Your task to perform on an android device: Open Youtube and go to "Your channel" Image 0: 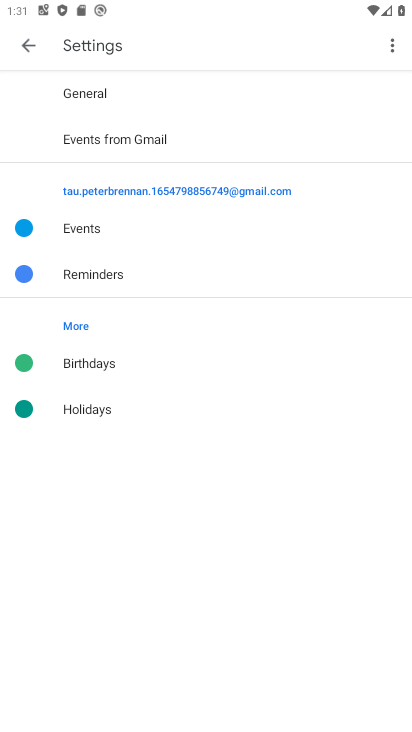
Step 0: press home button
Your task to perform on an android device: Open Youtube and go to "Your channel" Image 1: 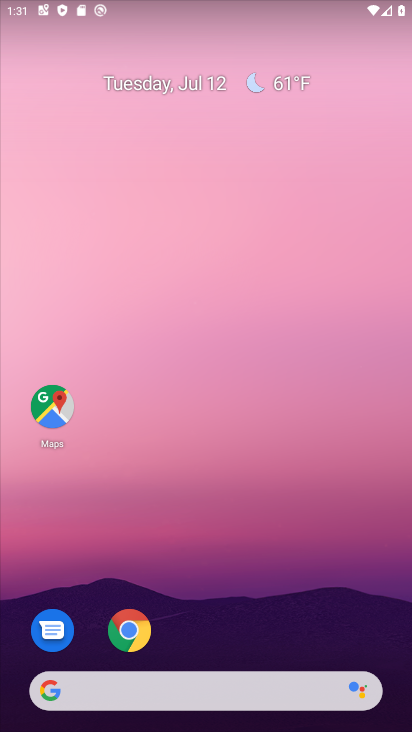
Step 1: drag from (226, 638) to (266, 196)
Your task to perform on an android device: Open Youtube and go to "Your channel" Image 2: 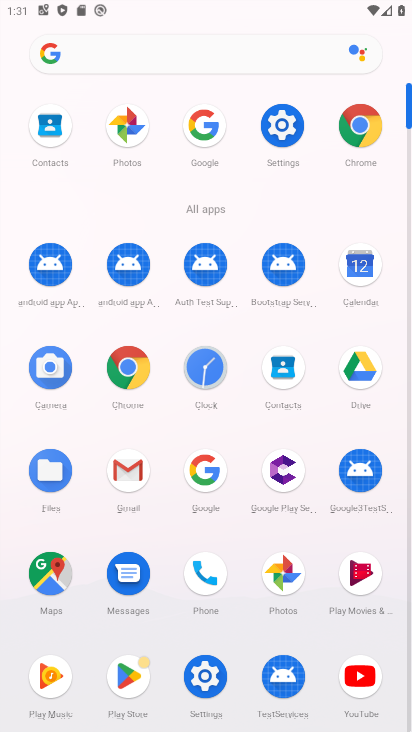
Step 2: click (350, 681)
Your task to perform on an android device: Open Youtube and go to "Your channel" Image 3: 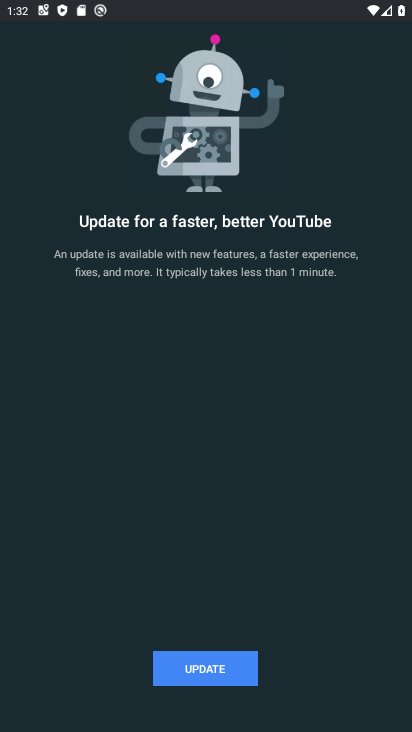
Step 3: click (254, 656)
Your task to perform on an android device: Open Youtube and go to "Your channel" Image 4: 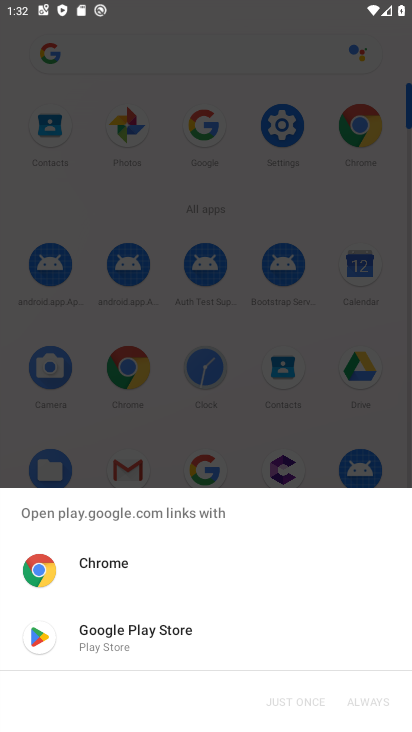
Step 4: click (116, 648)
Your task to perform on an android device: Open Youtube and go to "Your channel" Image 5: 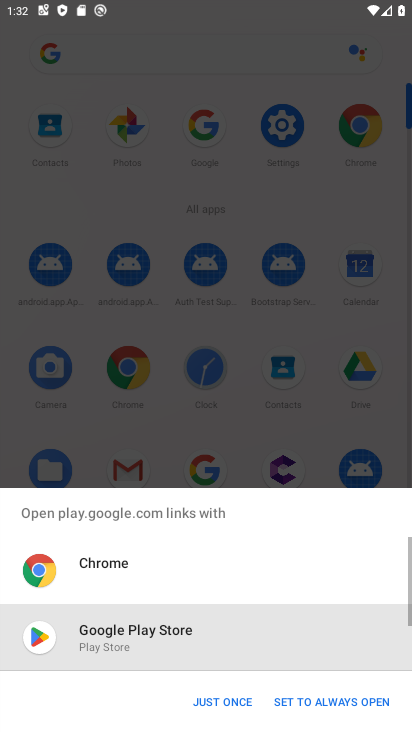
Step 5: click (234, 697)
Your task to perform on an android device: Open Youtube and go to "Your channel" Image 6: 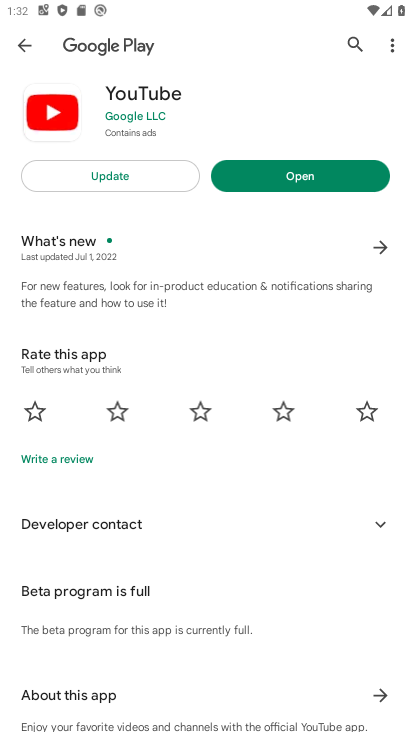
Step 6: click (139, 174)
Your task to perform on an android device: Open Youtube and go to "Your channel" Image 7: 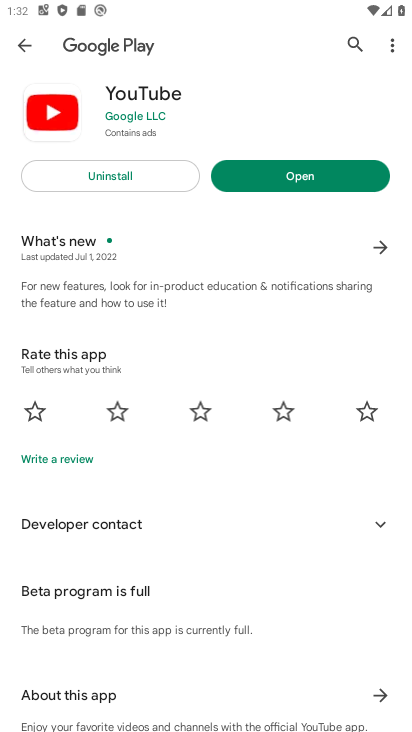
Step 7: click (266, 182)
Your task to perform on an android device: Open Youtube and go to "Your channel" Image 8: 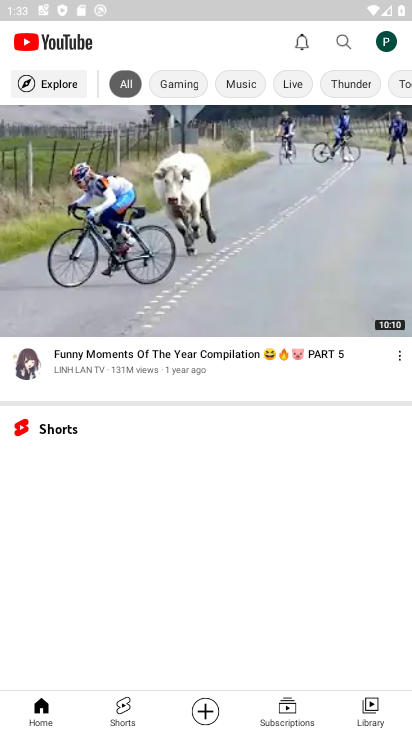
Step 8: click (382, 49)
Your task to perform on an android device: Open Youtube and go to "Your channel" Image 9: 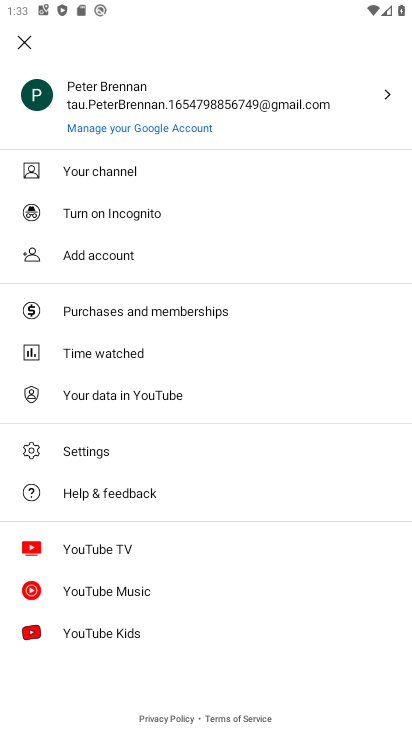
Step 9: click (170, 171)
Your task to perform on an android device: Open Youtube and go to "Your channel" Image 10: 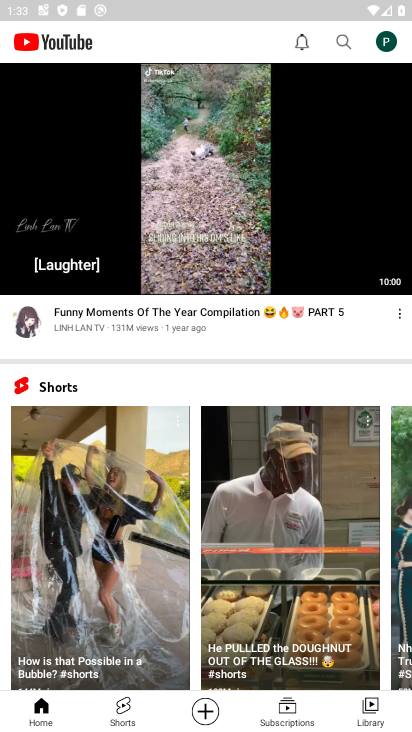
Step 10: task complete